Your task to perform on an android device: find which apps use the phone's location Image 0: 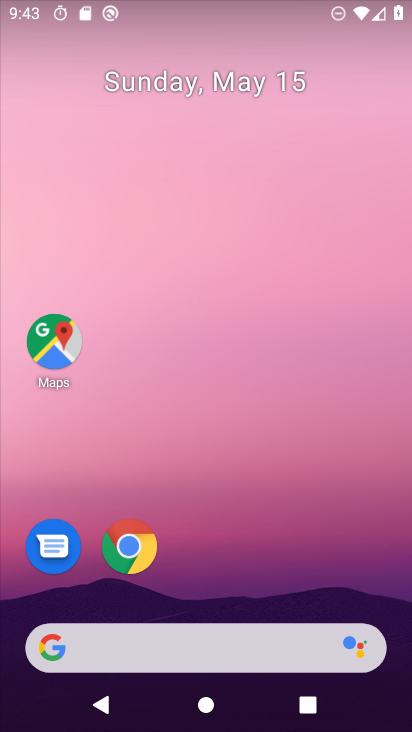
Step 0: drag from (243, 523) to (322, 15)
Your task to perform on an android device: find which apps use the phone's location Image 1: 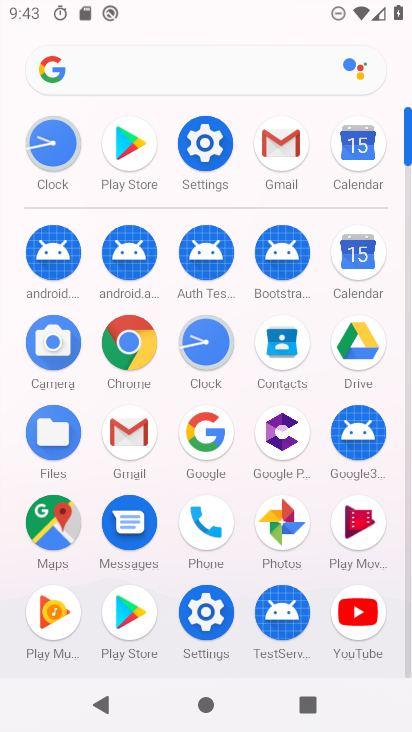
Step 1: click (215, 146)
Your task to perform on an android device: find which apps use the phone's location Image 2: 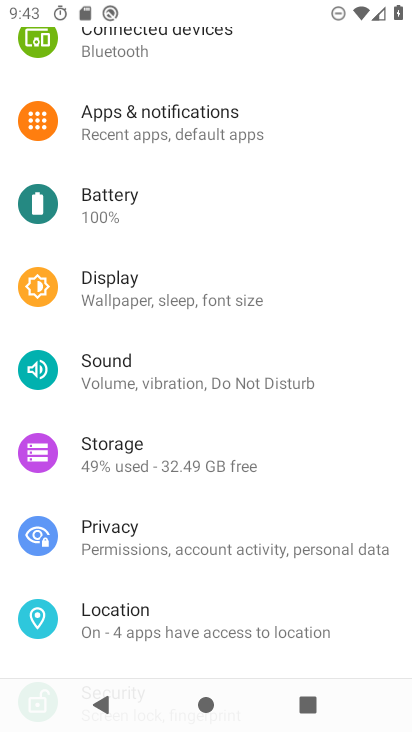
Step 2: click (199, 614)
Your task to perform on an android device: find which apps use the phone's location Image 3: 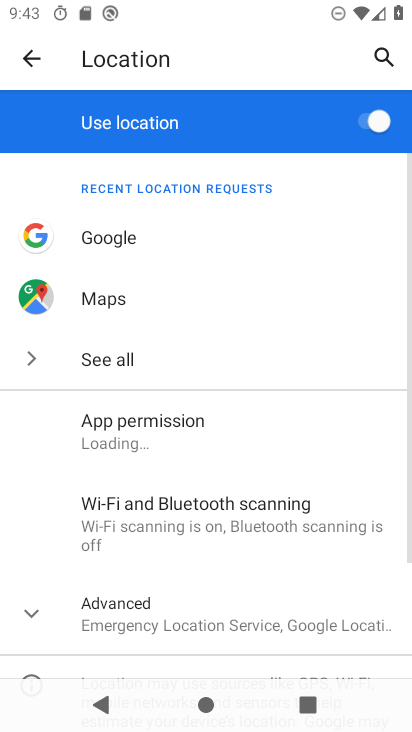
Step 3: click (182, 425)
Your task to perform on an android device: find which apps use the phone's location Image 4: 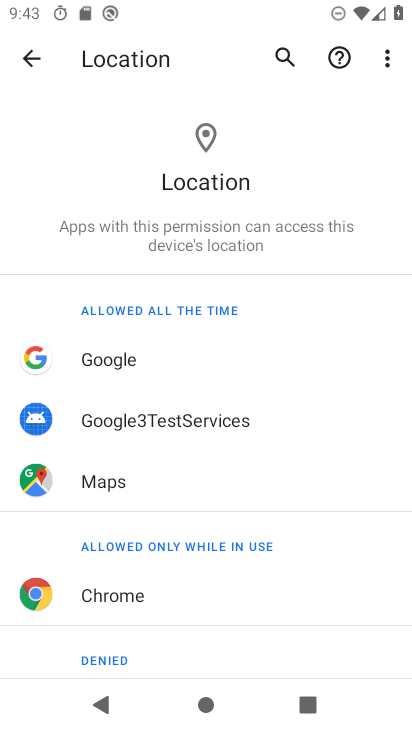
Step 4: task complete